Your task to perform on an android device: What is the news today? Image 0: 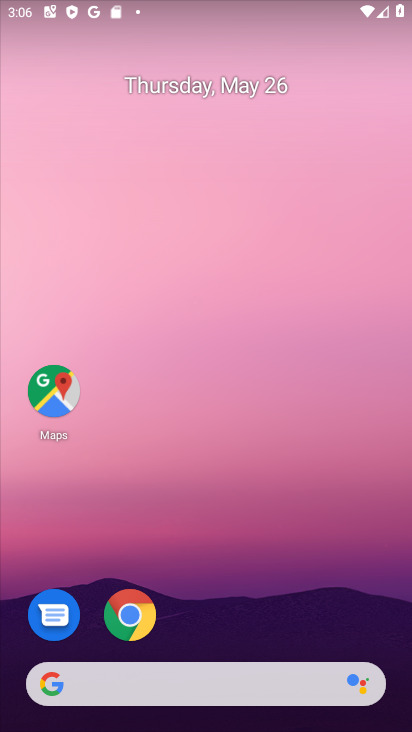
Step 0: click (169, 684)
Your task to perform on an android device: What is the news today? Image 1: 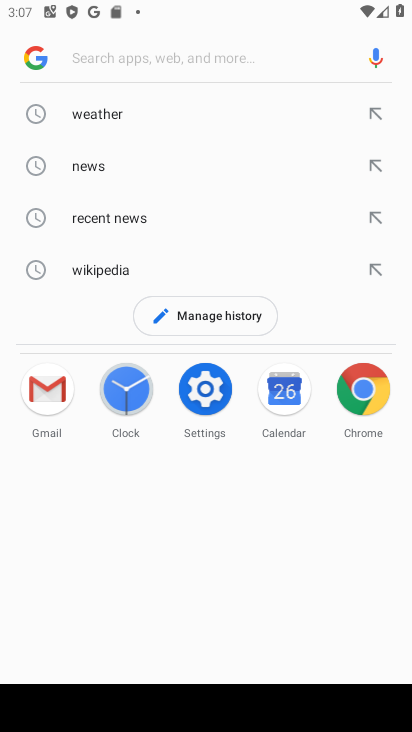
Step 1: click (91, 176)
Your task to perform on an android device: What is the news today? Image 2: 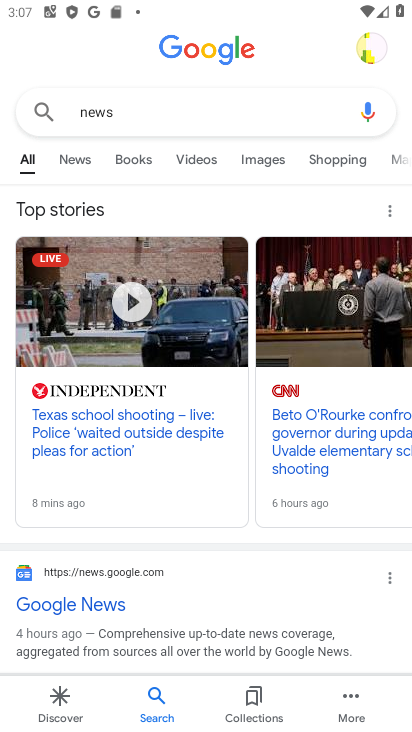
Step 2: task complete